Your task to perform on an android device: Check the weather Image 0: 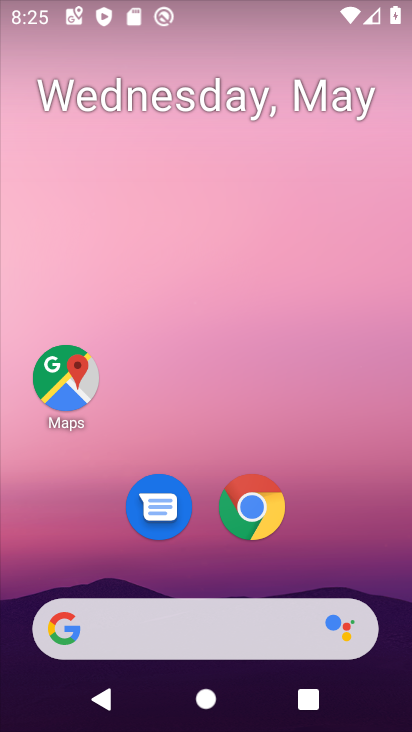
Step 0: click (271, 503)
Your task to perform on an android device: Check the weather Image 1: 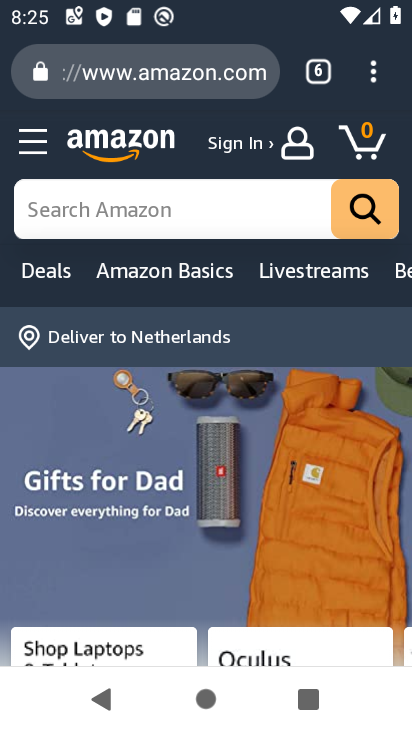
Step 1: click (359, 68)
Your task to perform on an android device: Check the weather Image 2: 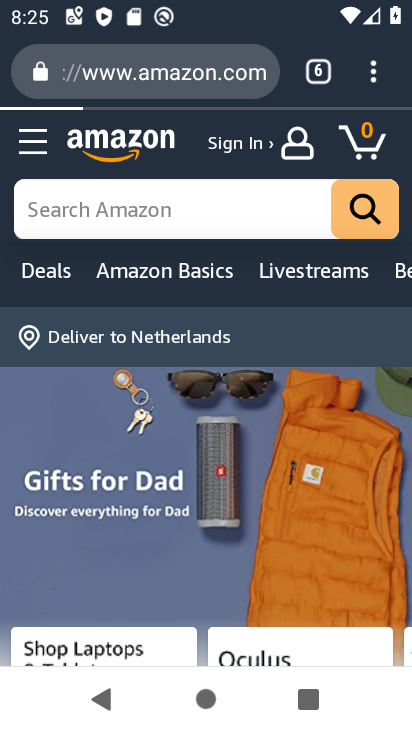
Step 2: click (374, 60)
Your task to perform on an android device: Check the weather Image 3: 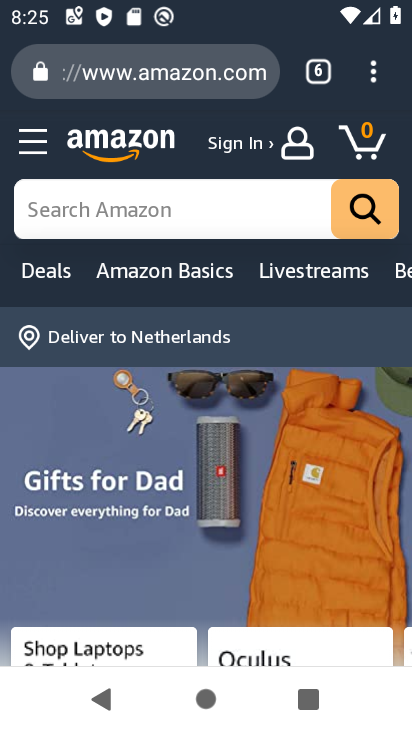
Step 3: click (370, 70)
Your task to perform on an android device: Check the weather Image 4: 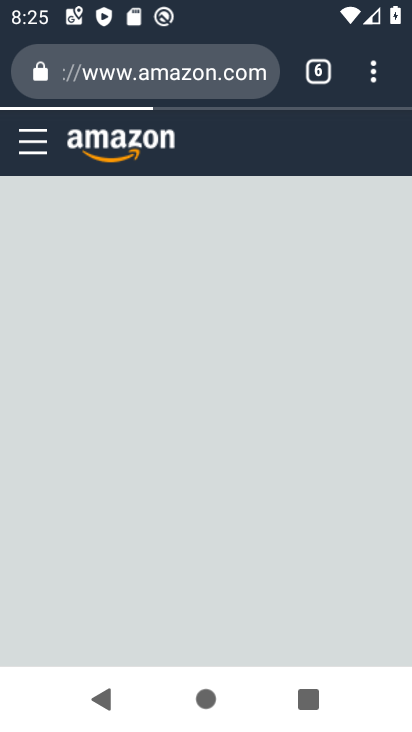
Step 4: click (376, 48)
Your task to perform on an android device: Check the weather Image 5: 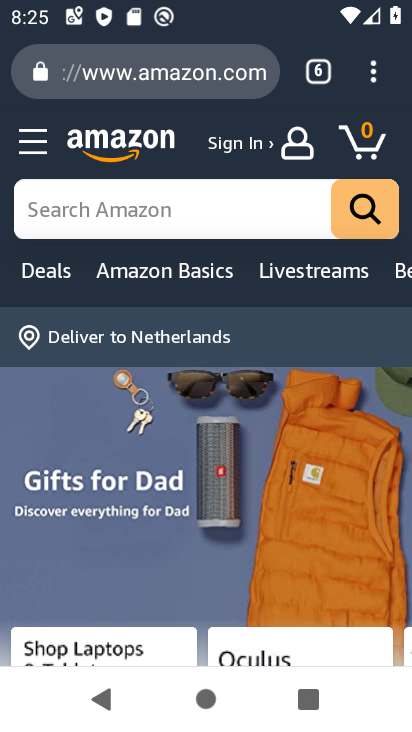
Step 5: click (358, 82)
Your task to perform on an android device: Check the weather Image 6: 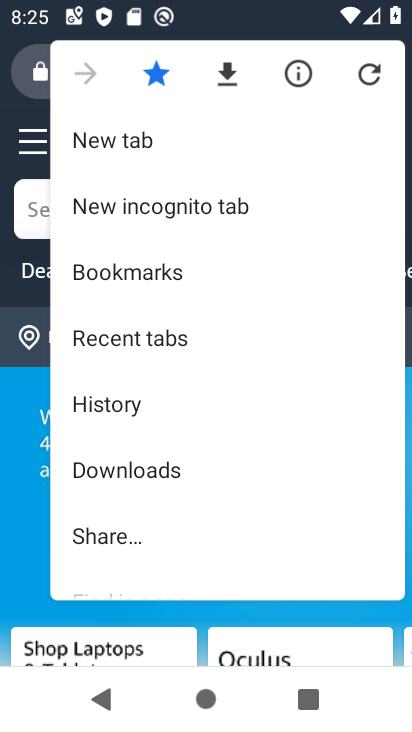
Step 6: click (112, 127)
Your task to perform on an android device: Check the weather Image 7: 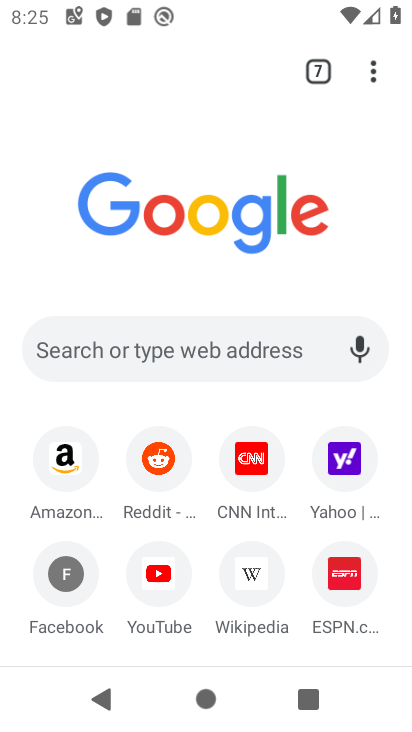
Step 7: click (206, 350)
Your task to perform on an android device: Check the weather Image 8: 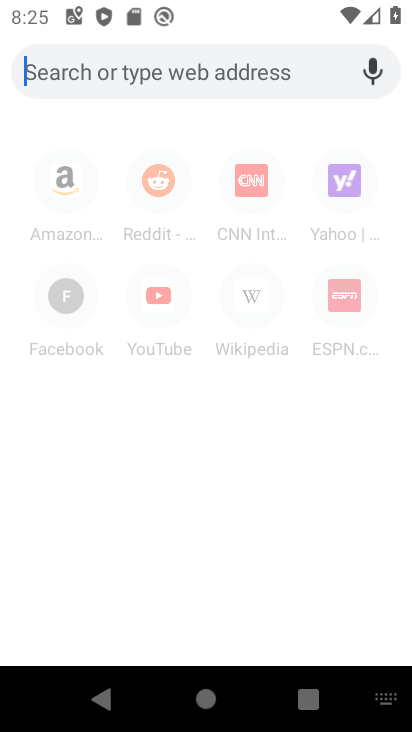
Step 8: type "Check the weather"
Your task to perform on an android device: Check the weather Image 9: 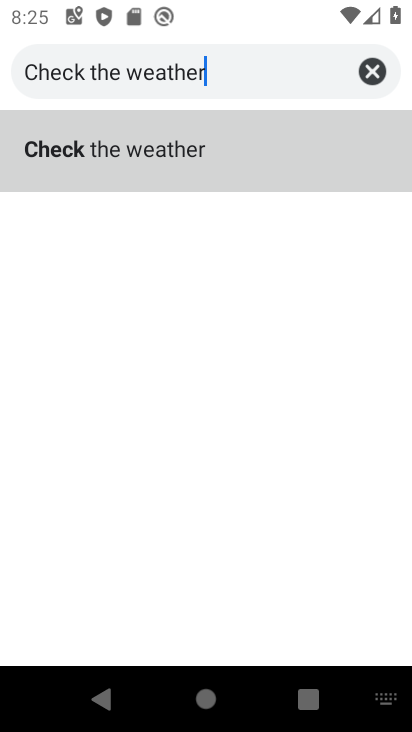
Step 9: click (226, 130)
Your task to perform on an android device: Check the weather Image 10: 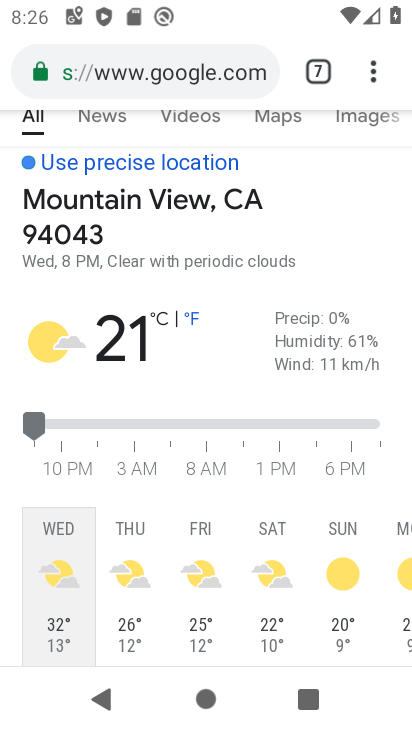
Step 10: task complete